Your task to perform on an android device: toggle notification dots Image 0: 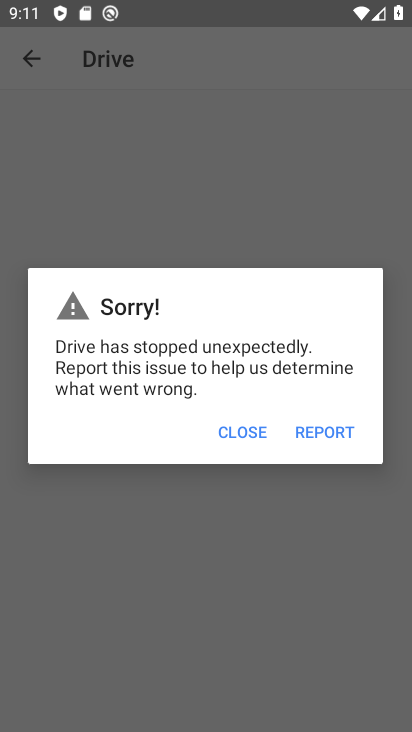
Step 0: press home button
Your task to perform on an android device: toggle notification dots Image 1: 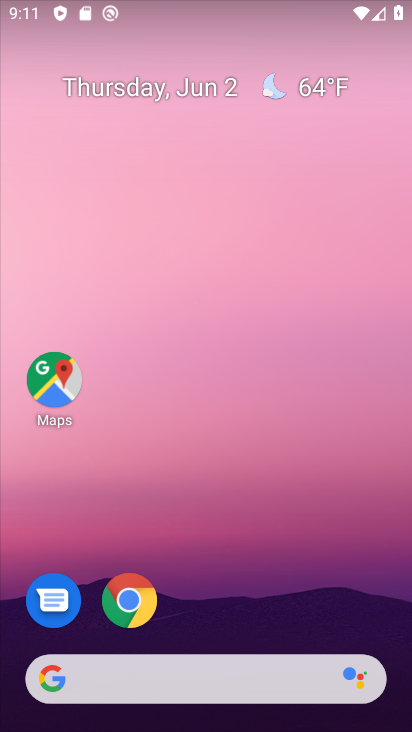
Step 1: drag from (277, 711) to (226, 40)
Your task to perform on an android device: toggle notification dots Image 2: 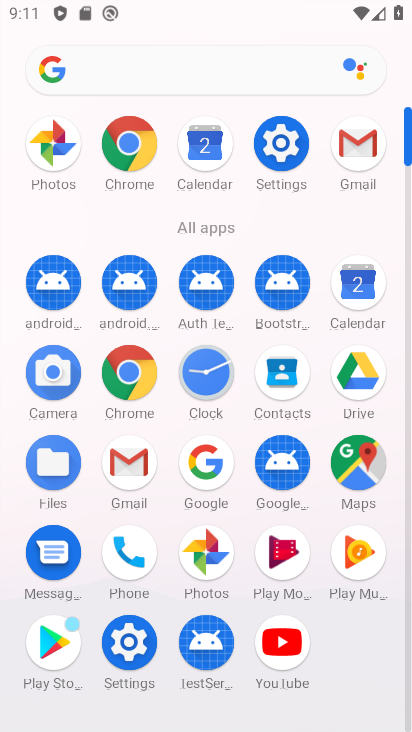
Step 2: click (278, 142)
Your task to perform on an android device: toggle notification dots Image 3: 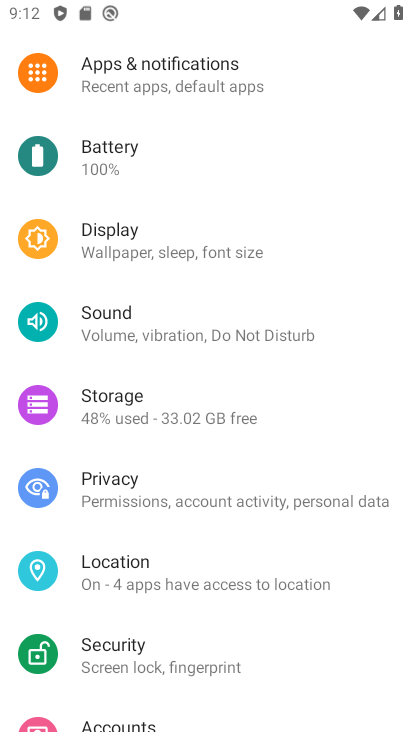
Step 3: click (180, 83)
Your task to perform on an android device: toggle notification dots Image 4: 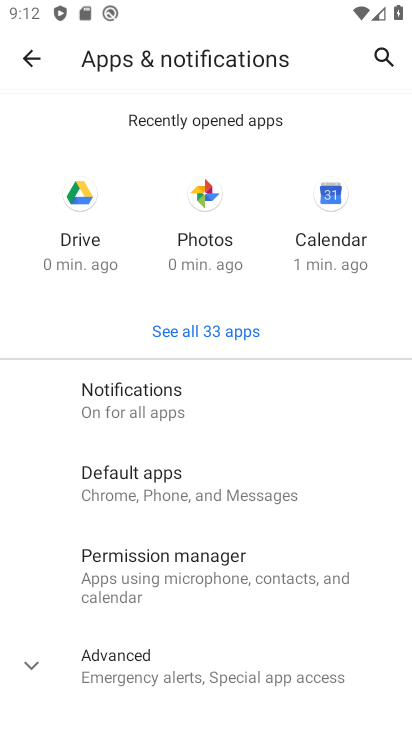
Step 4: click (167, 402)
Your task to perform on an android device: toggle notification dots Image 5: 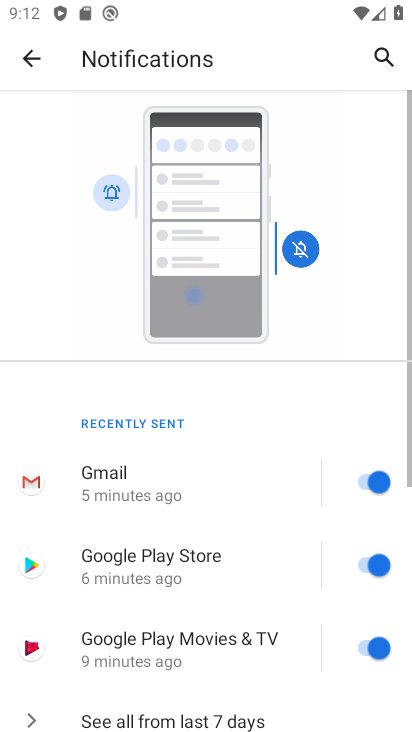
Step 5: drag from (239, 604) to (245, 1)
Your task to perform on an android device: toggle notification dots Image 6: 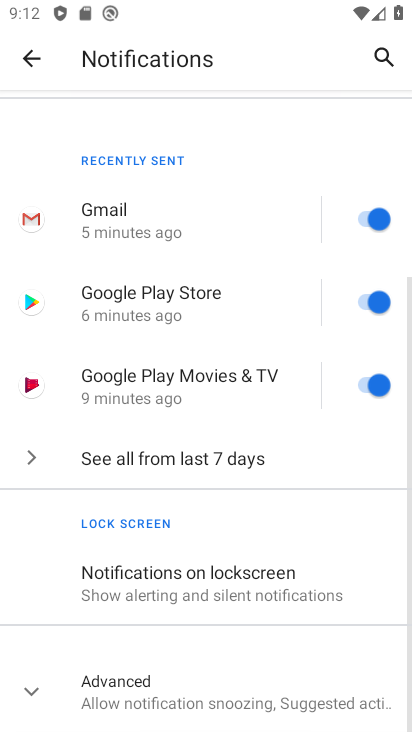
Step 6: click (133, 699)
Your task to perform on an android device: toggle notification dots Image 7: 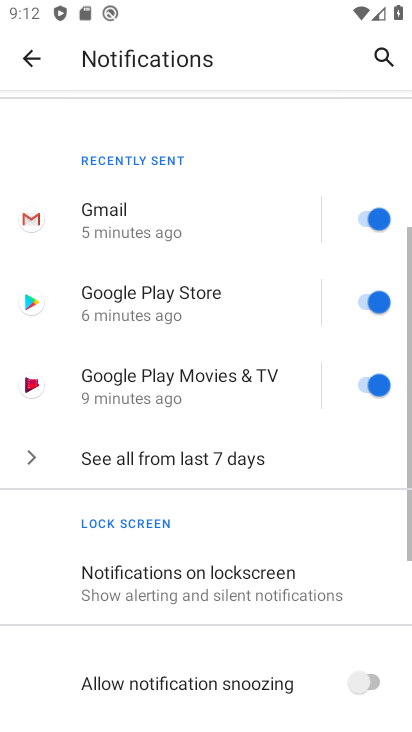
Step 7: drag from (252, 664) to (265, 189)
Your task to perform on an android device: toggle notification dots Image 8: 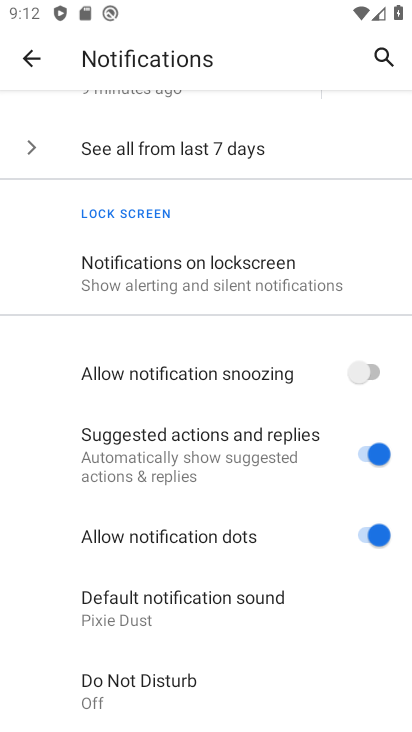
Step 8: click (379, 535)
Your task to perform on an android device: toggle notification dots Image 9: 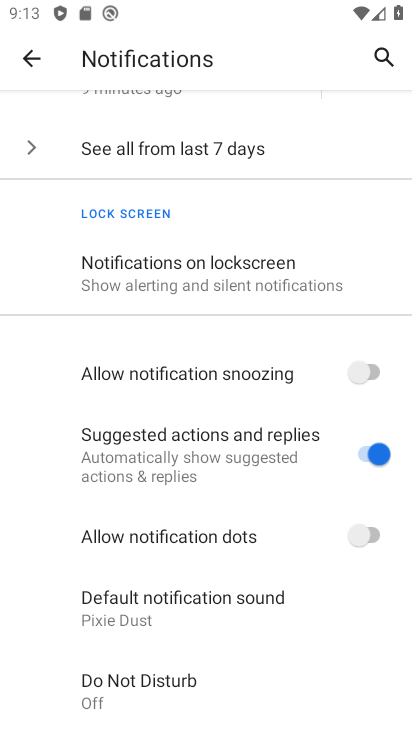
Step 9: task complete